Your task to perform on an android device: Show me the alarms in the clock app Image 0: 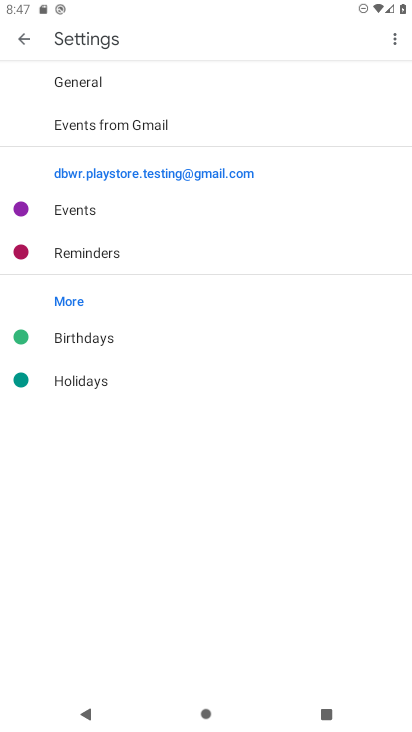
Step 0: press home button
Your task to perform on an android device: Show me the alarms in the clock app Image 1: 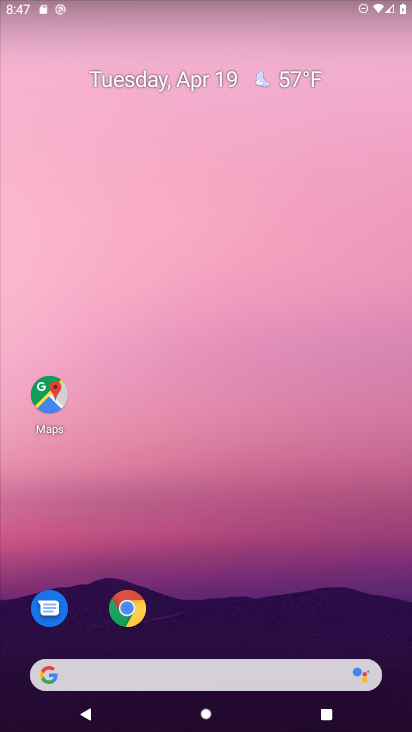
Step 1: drag from (262, 410) to (244, 155)
Your task to perform on an android device: Show me the alarms in the clock app Image 2: 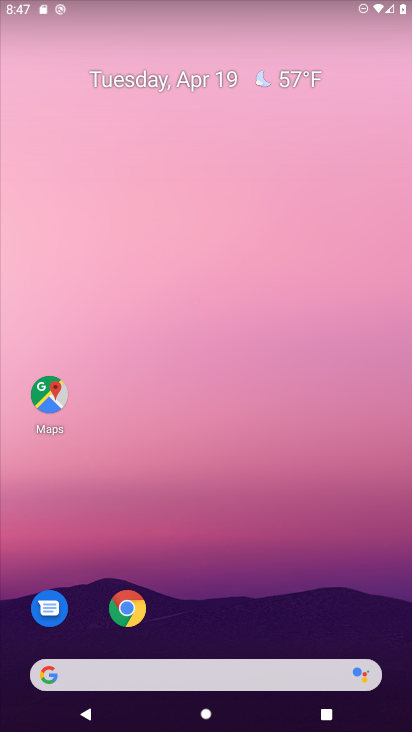
Step 2: drag from (228, 361) to (234, 29)
Your task to perform on an android device: Show me the alarms in the clock app Image 3: 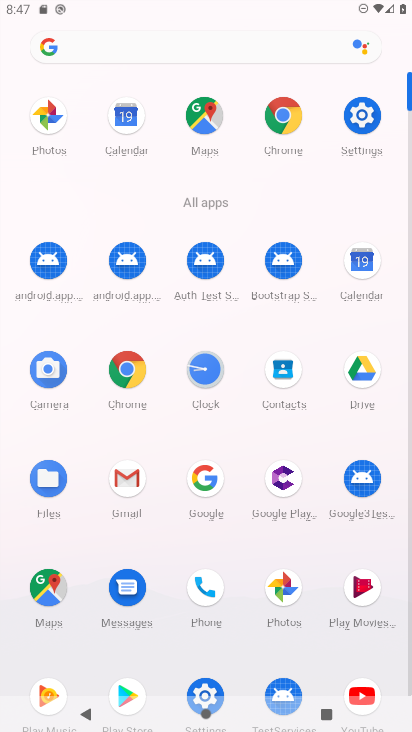
Step 3: click (195, 370)
Your task to perform on an android device: Show me the alarms in the clock app Image 4: 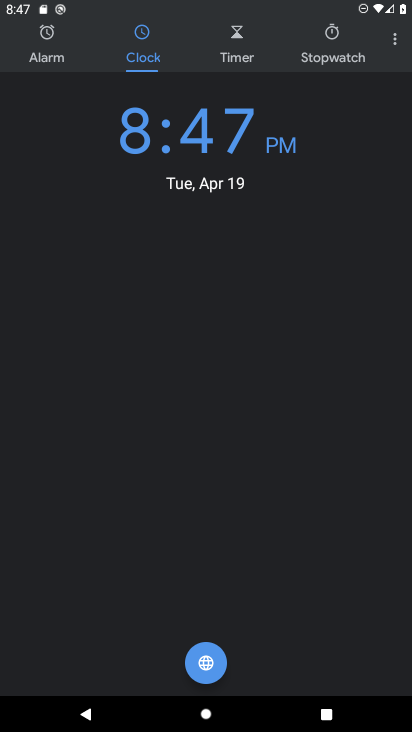
Step 4: click (55, 55)
Your task to perform on an android device: Show me the alarms in the clock app Image 5: 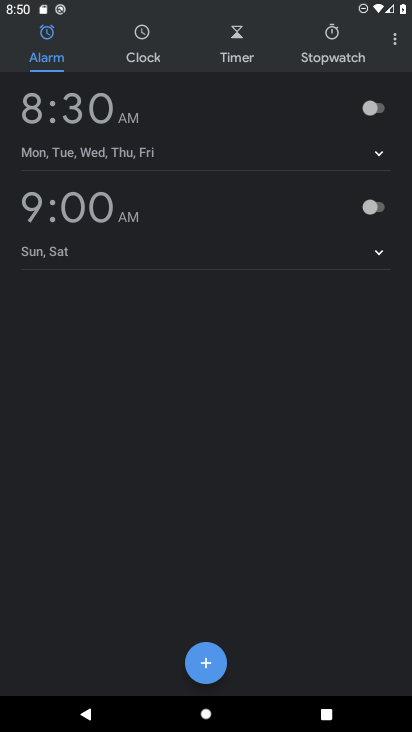
Step 5: task complete